Your task to perform on an android device: uninstall "Google Drive" Image 0: 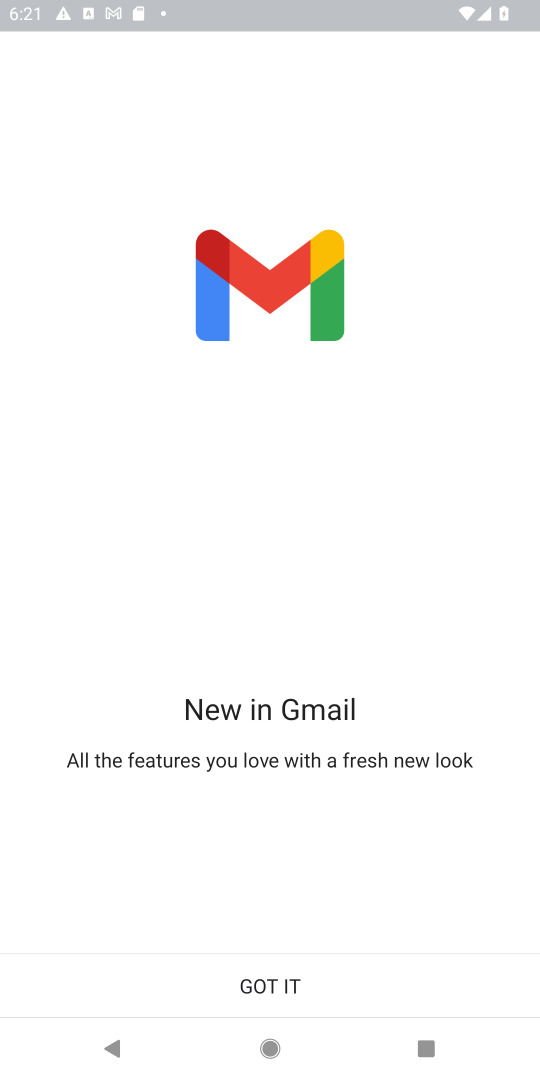
Step 0: press home button
Your task to perform on an android device: uninstall "Google Drive" Image 1: 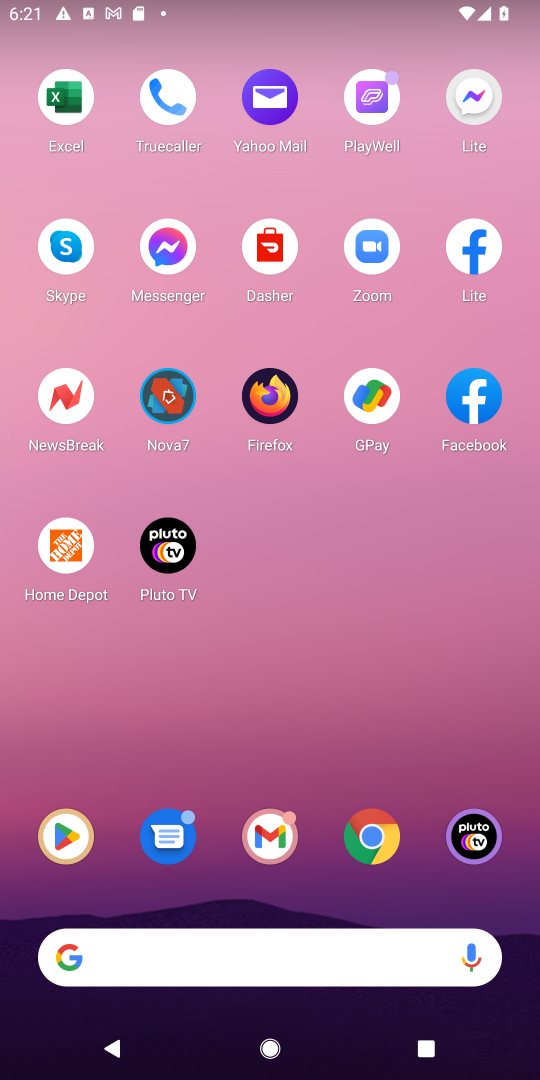
Step 1: press home button
Your task to perform on an android device: uninstall "Google Drive" Image 2: 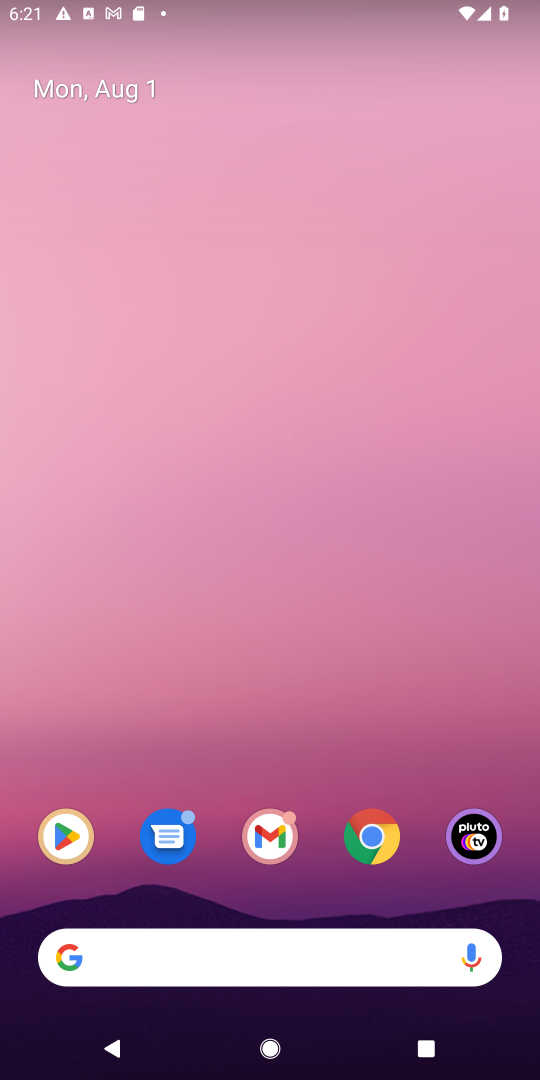
Step 2: click (69, 827)
Your task to perform on an android device: uninstall "Google Drive" Image 3: 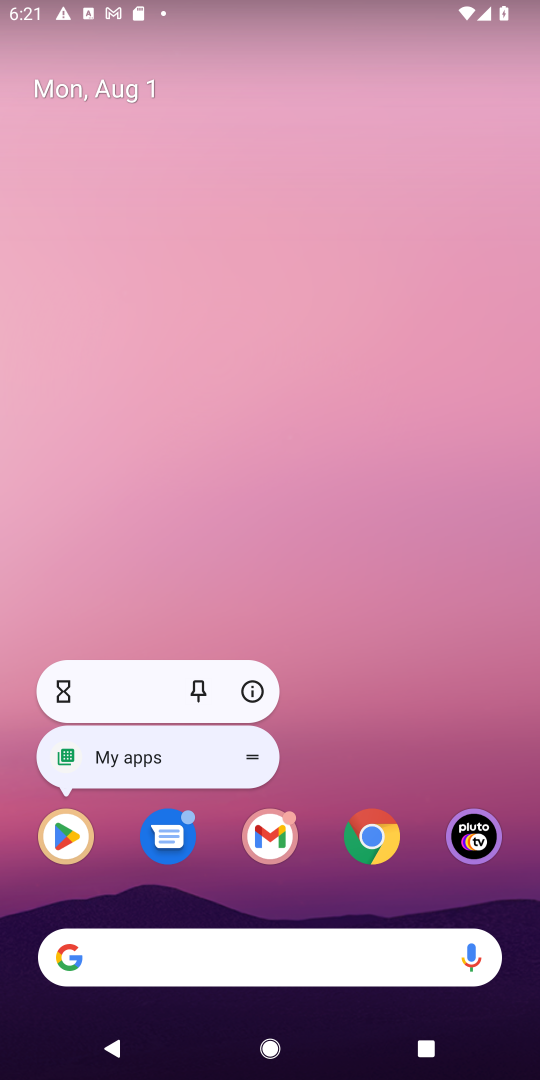
Step 3: click (60, 836)
Your task to perform on an android device: uninstall "Google Drive" Image 4: 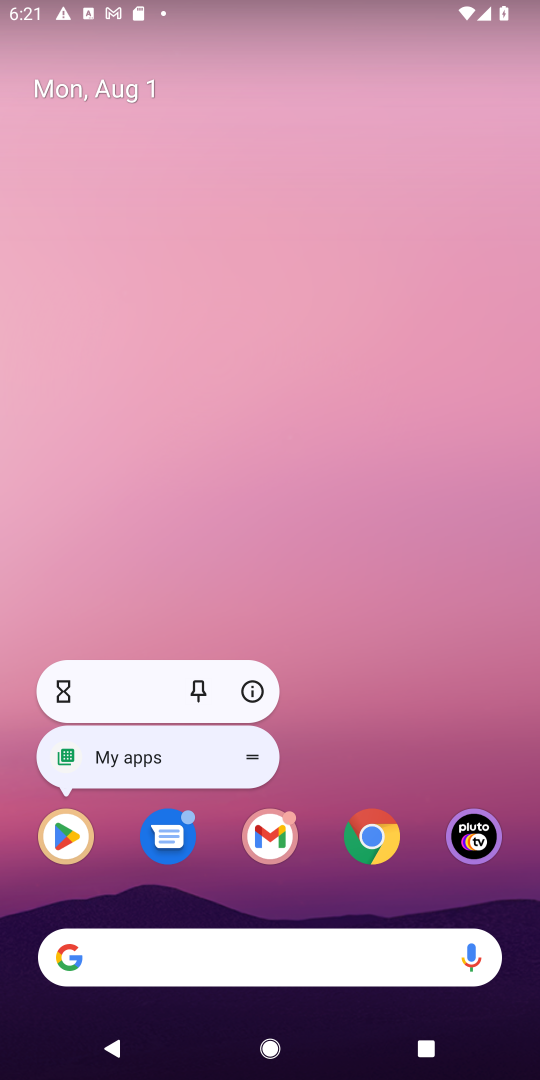
Step 4: click (64, 832)
Your task to perform on an android device: uninstall "Google Drive" Image 5: 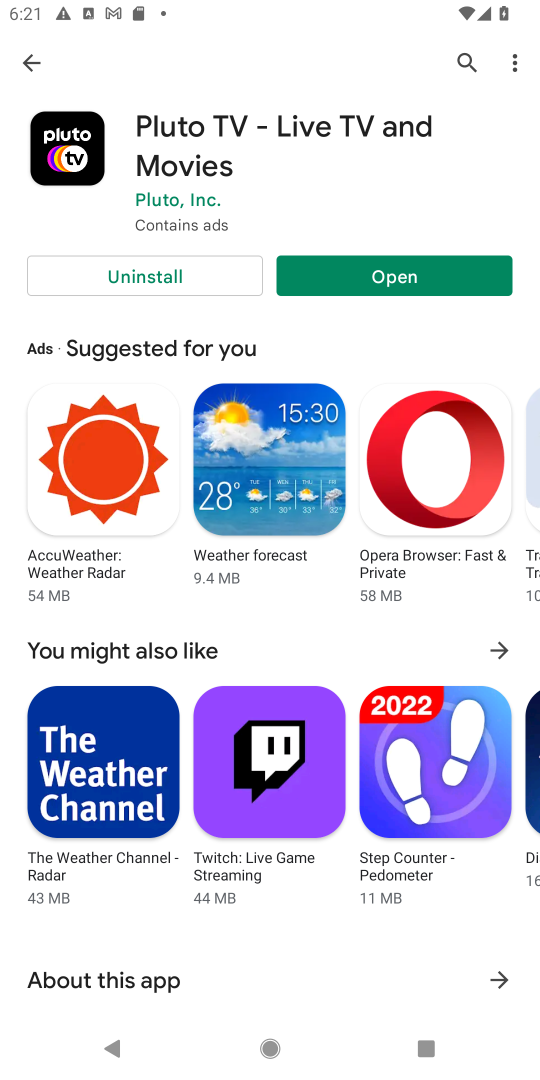
Step 5: click (457, 53)
Your task to perform on an android device: uninstall "Google Drive" Image 6: 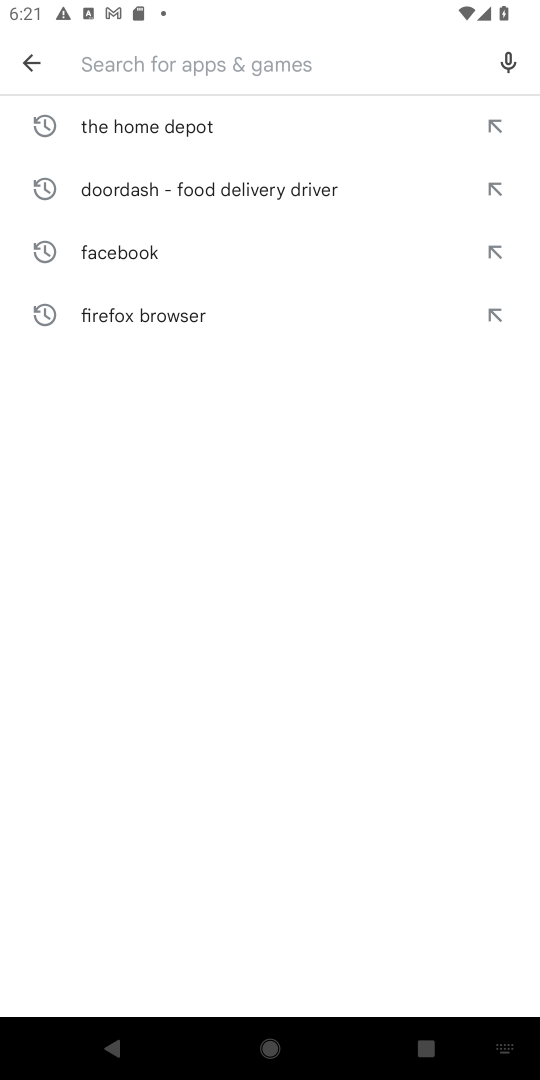
Step 6: type "Google Drive"
Your task to perform on an android device: uninstall "Google Drive" Image 7: 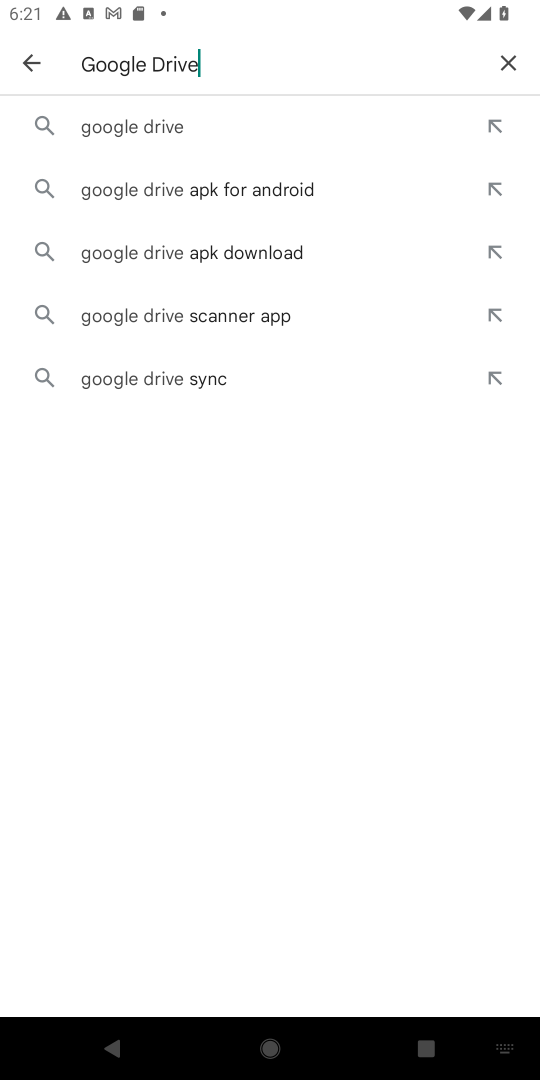
Step 7: click (155, 128)
Your task to perform on an android device: uninstall "Google Drive" Image 8: 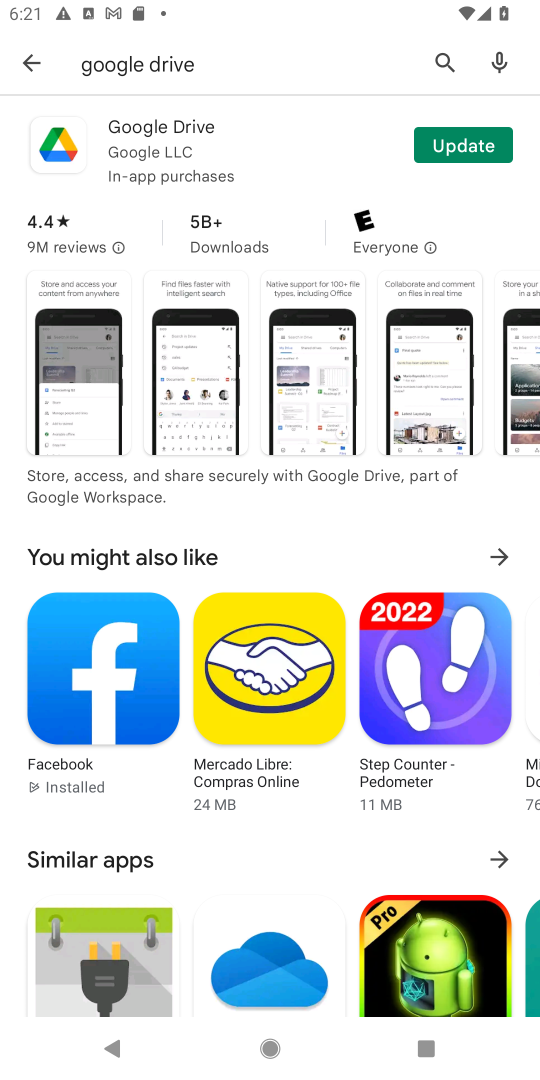
Step 8: click (151, 147)
Your task to perform on an android device: uninstall "Google Drive" Image 9: 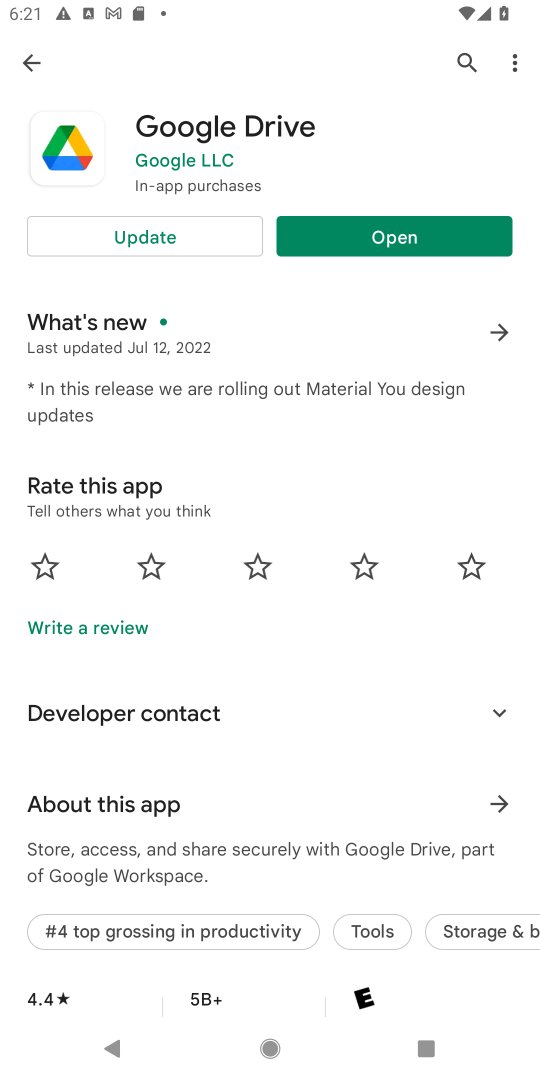
Step 9: task complete